Your task to perform on an android device: Go to Reddit.com Image 0: 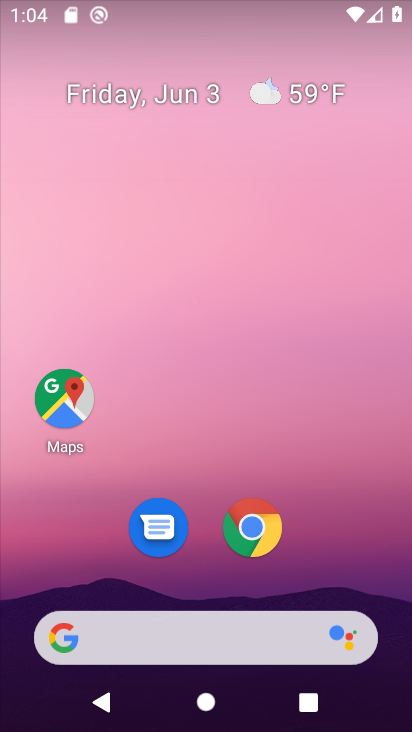
Step 0: click (256, 518)
Your task to perform on an android device: Go to Reddit.com Image 1: 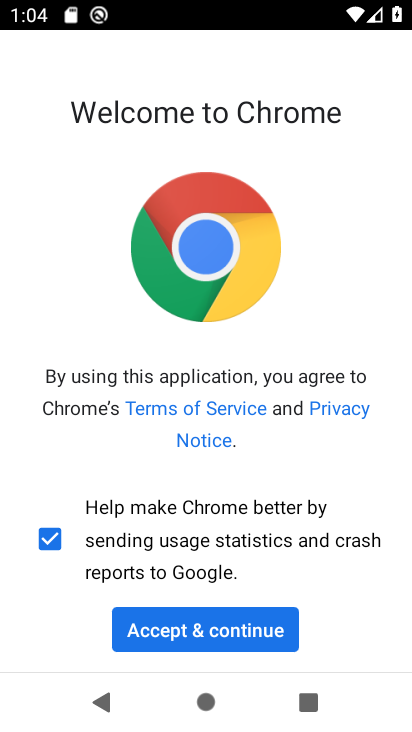
Step 1: click (237, 622)
Your task to perform on an android device: Go to Reddit.com Image 2: 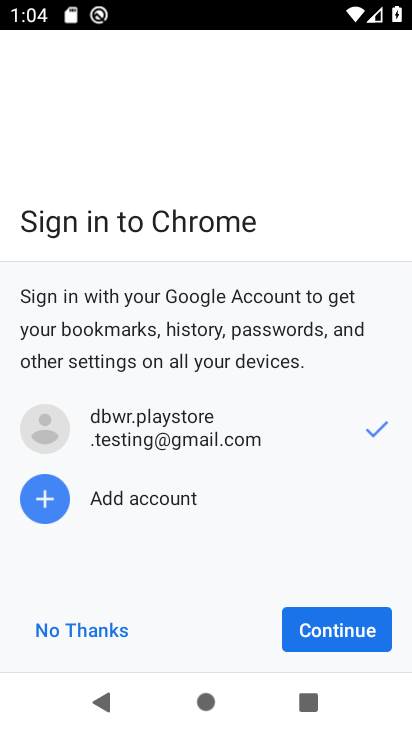
Step 2: click (313, 618)
Your task to perform on an android device: Go to Reddit.com Image 3: 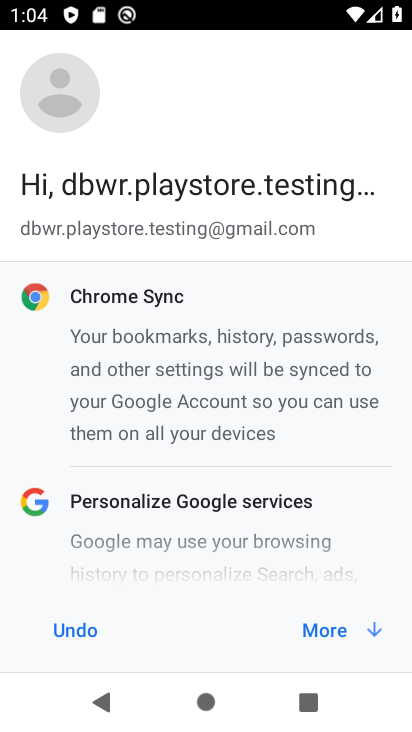
Step 3: click (330, 640)
Your task to perform on an android device: Go to Reddit.com Image 4: 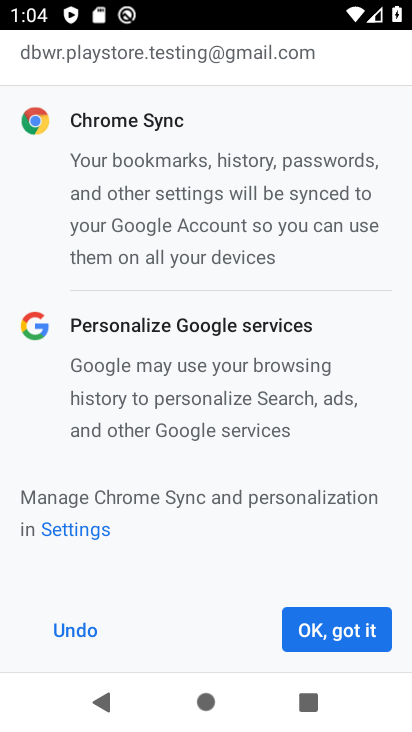
Step 4: click (330, 640)
Your task to perform on an android device: Go to Reddit.com Image 5: 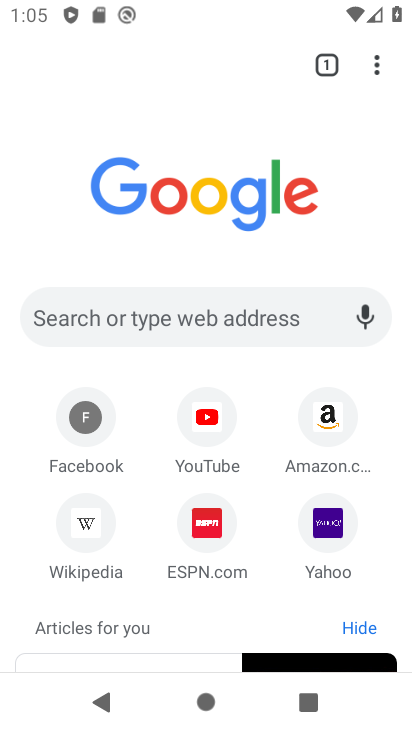
Step 5: click (276, 308)
Your task to perform on an android device: Go to Reddit.com Image 6: 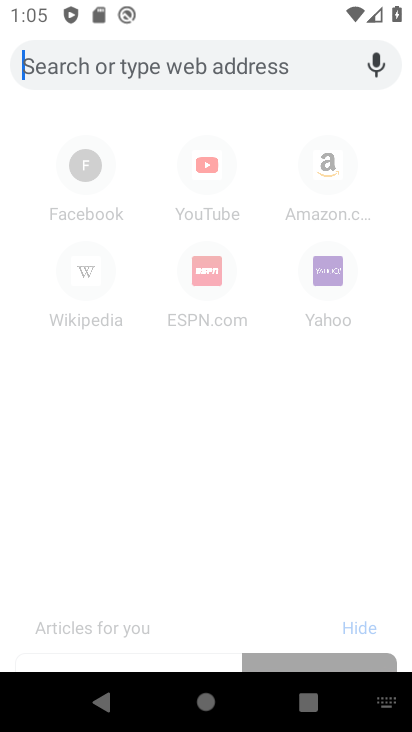
Step 6: type "reddit"
Your task to perform on an android device: Go to Reddit.com Image 7: 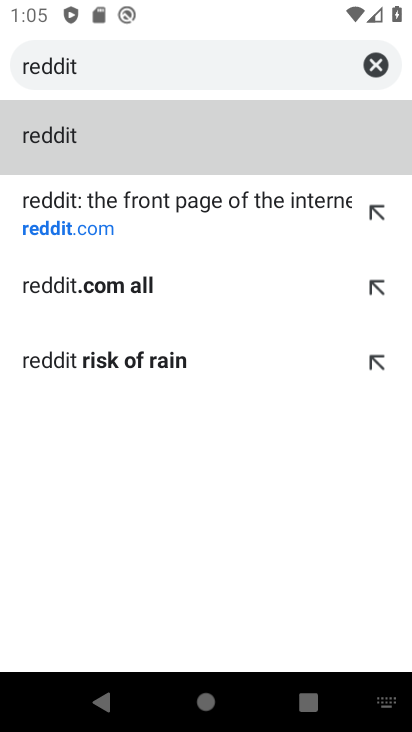
Step 7: click (140, 180)
Your task to perform on an android device: Go to Reddit.com Image 8: 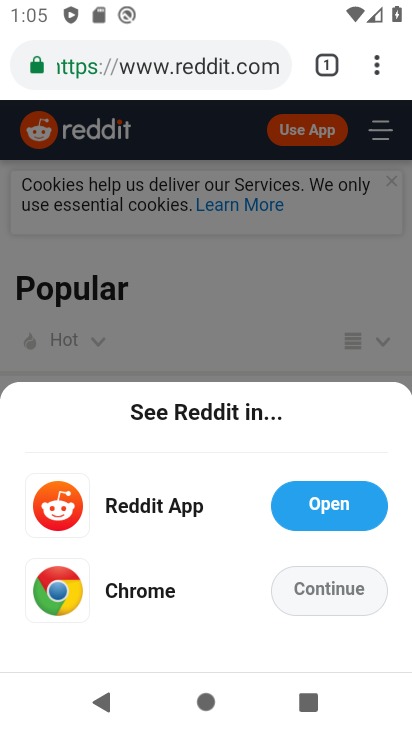
Step 8: task complete